Your task to perform on an android device: Open calendar and show me the fourth week of next month Image 0: 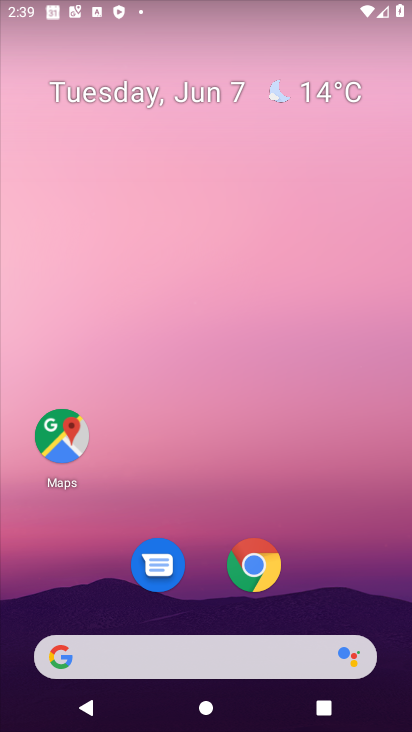
Step 0: drag from (278, 652) to (305, 76)
Your task to perform on an android device: Open calendar and show me the fourth week of next month Image 1: 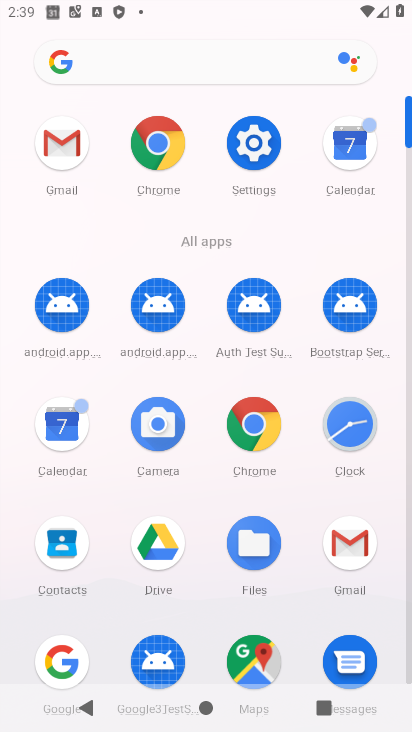
Step 1: click (71, 418)
Your task to perform on an android device: Open calendar and show me the fourth week of next month Image 2: 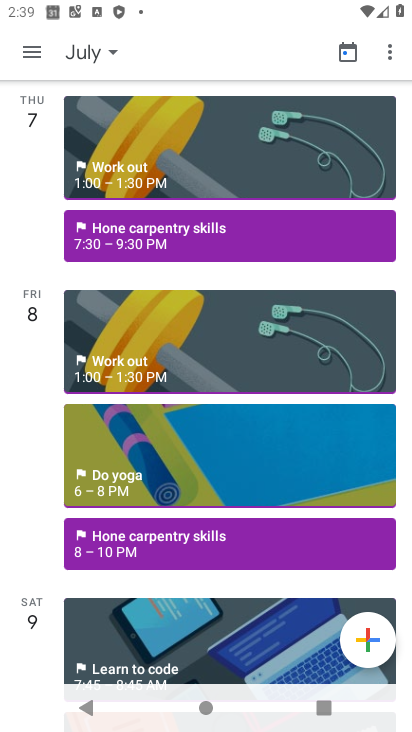
Step 2: click (115, 51)
Your task to perform on an android device: Open calendar and show me the fourth week of next month Image 3: 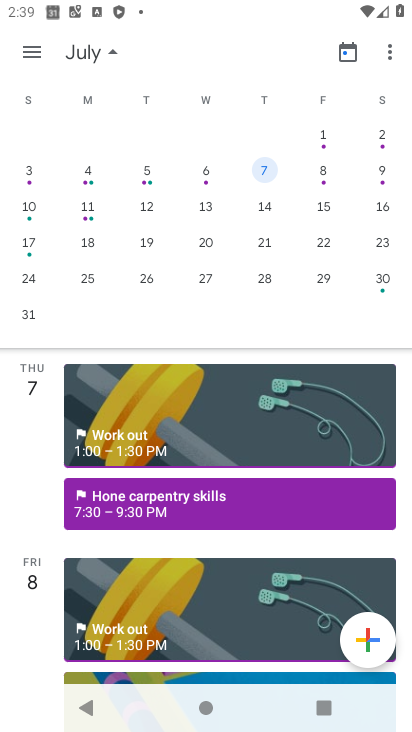
Step 3: drag from (389, 234) to (9, 227)
Your task to perform on an android device: Open calendar and show me the fourth week of next month Image 4: 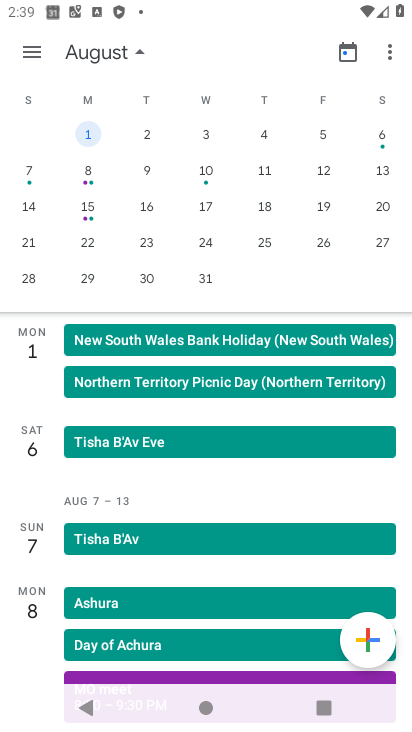
Step 4: drag from (111, 212) to (358, 240)
Your task to perform on an android device: Open calendar and show me the fourth week of next month Image 5: 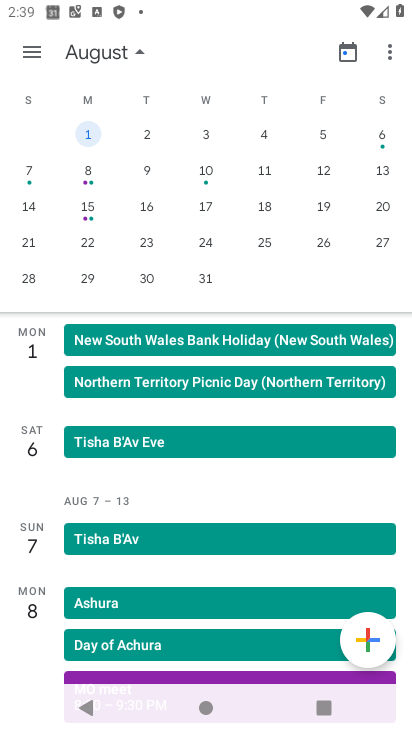
Step 5: drag from (25, 221) to (381, 214)
Your task to perform on an android device: Open calendar and show me the fourth week of next month Image 6: 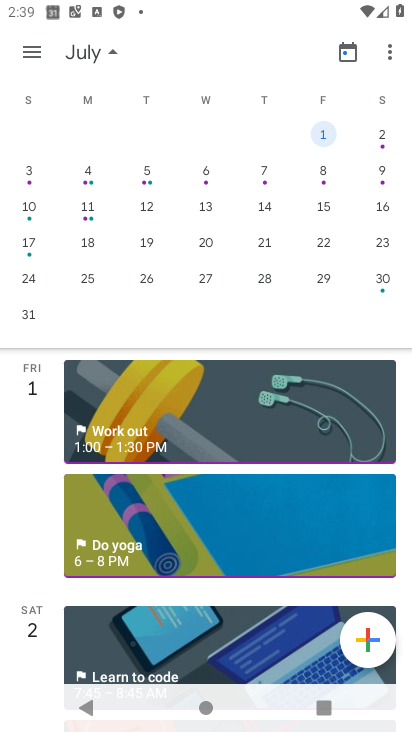
Step 6: click (267, 232)
Your task to perform on an android device: Open calendar and show me the fourth week of next month Image 7: 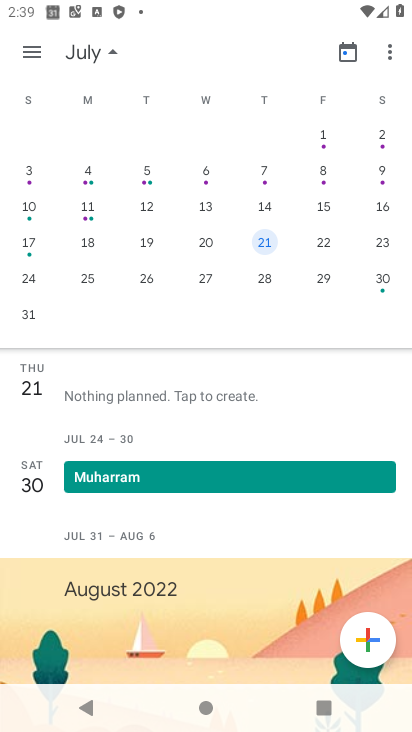
Step 7: task complete